Your task to perform on an android device: clear all cookies in the chrome app Image 0: 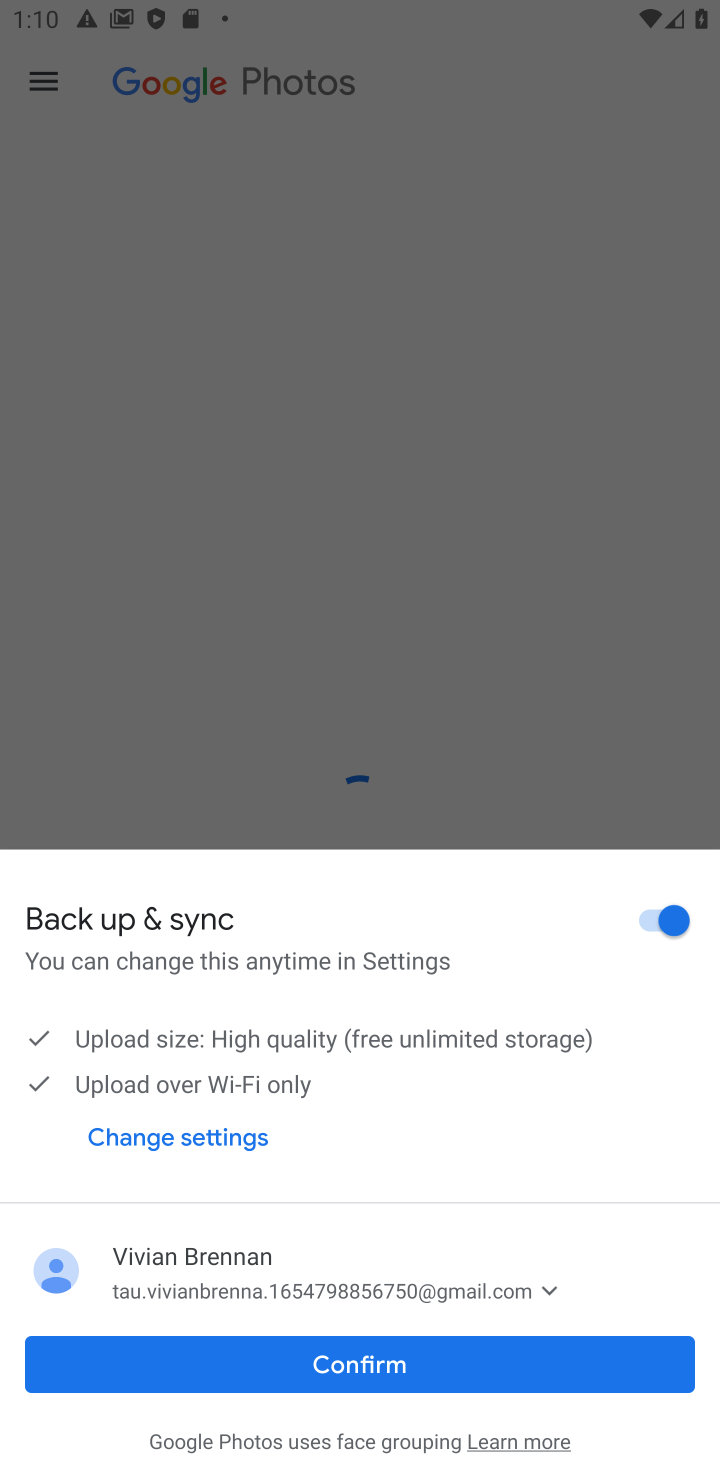
Step 0: press home button
Your task to perform on an android device: clear all cookies in the chrome app Image 1: 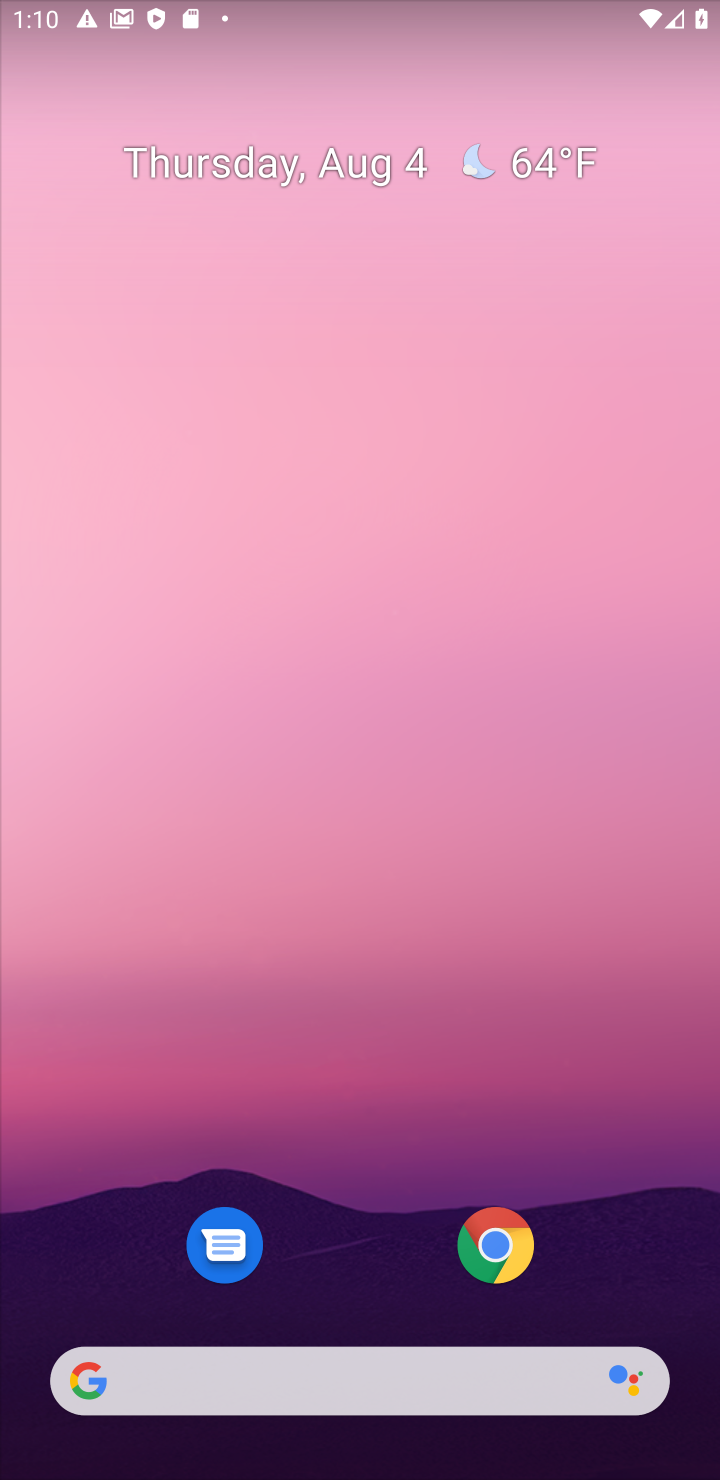
Step 1: click (497, 1238)
Your task to perform on an android device: clear all cookies in the chrome app Image 2: 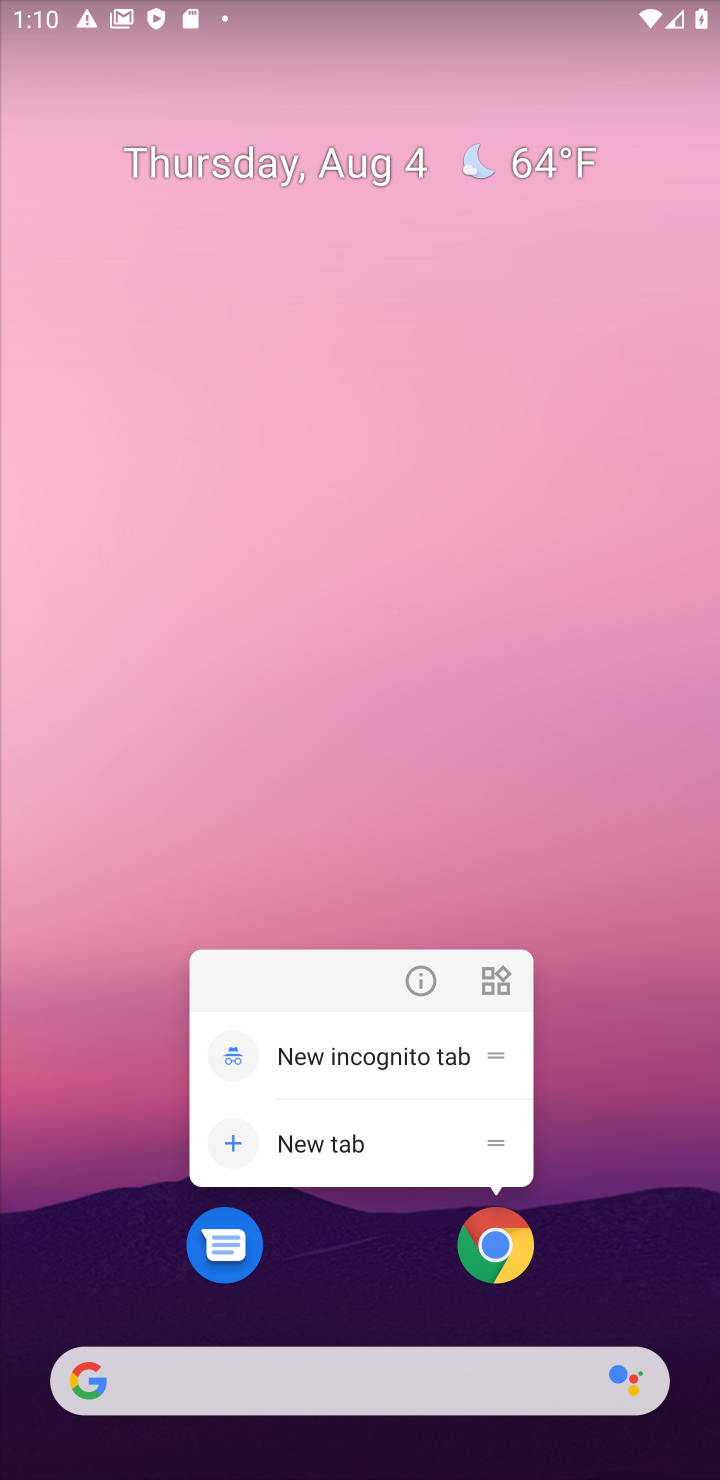
Step 2: click (497, 1236)
Your task to perform on an android device: clear all cookies in the chrome app Image 3: 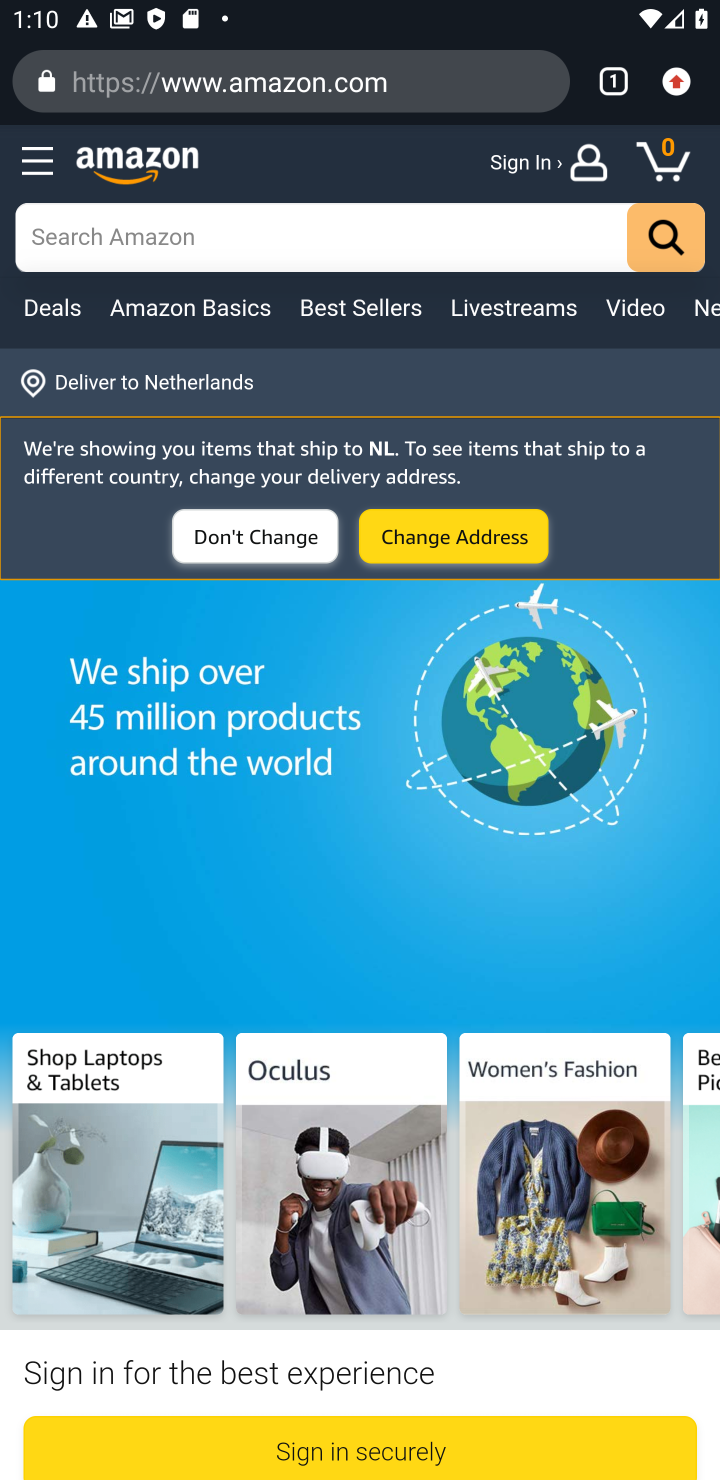
Step 3: click (665, 85)
Your task to perform on an android device: clear all cookies in the chrome app Image 4: 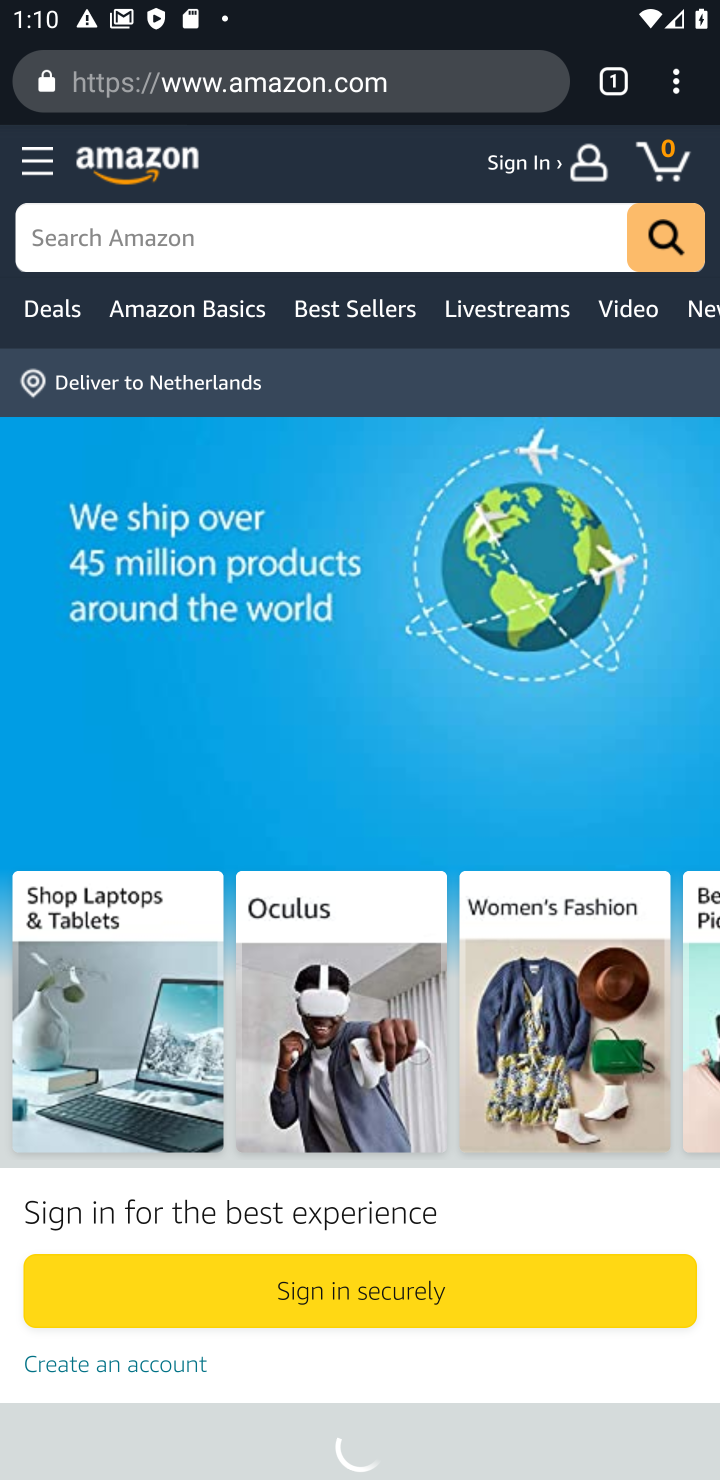
Step 4: click (675, 76)
Your task to perform on an android device: clear all cookies in the chrome app Image 5: 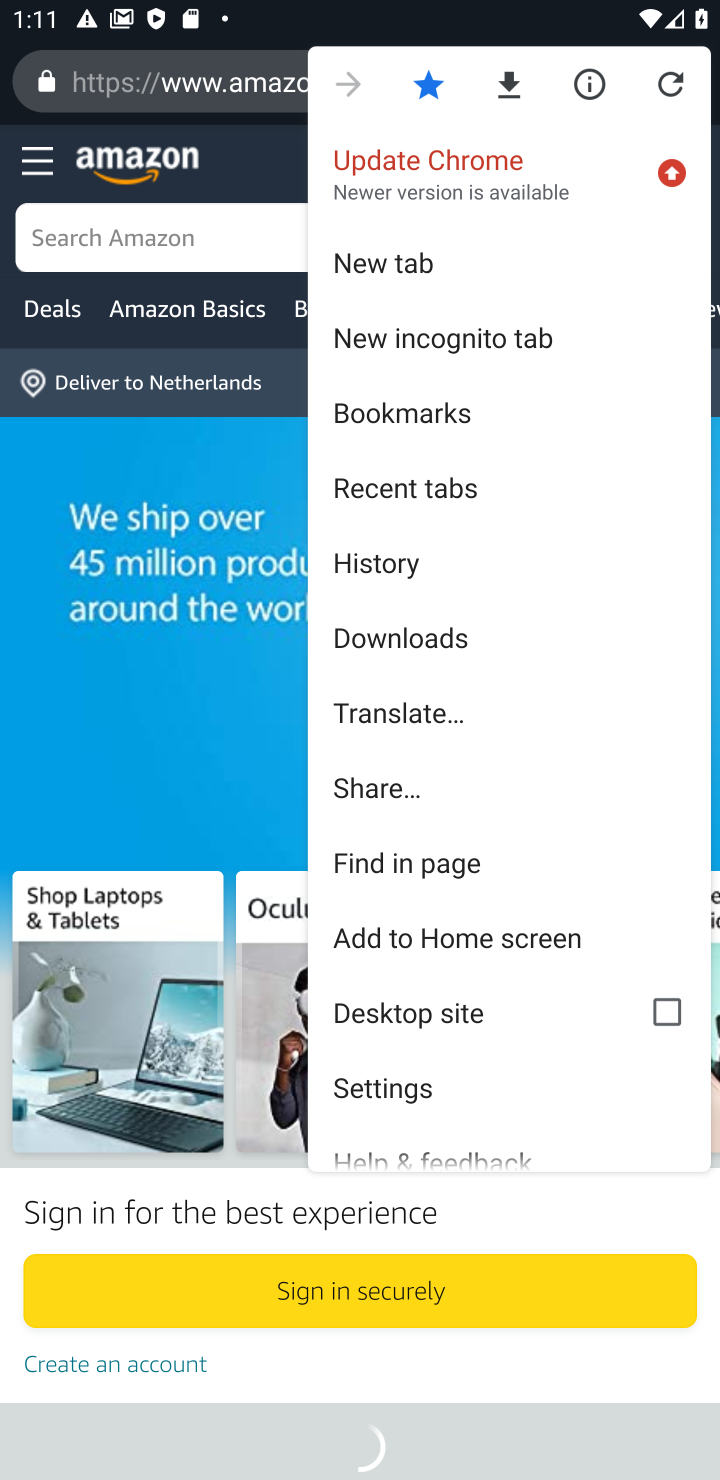
Step 5: click (426, 554)
Your task to perform on an android device: clear all cookies in the chrome app Image 6: 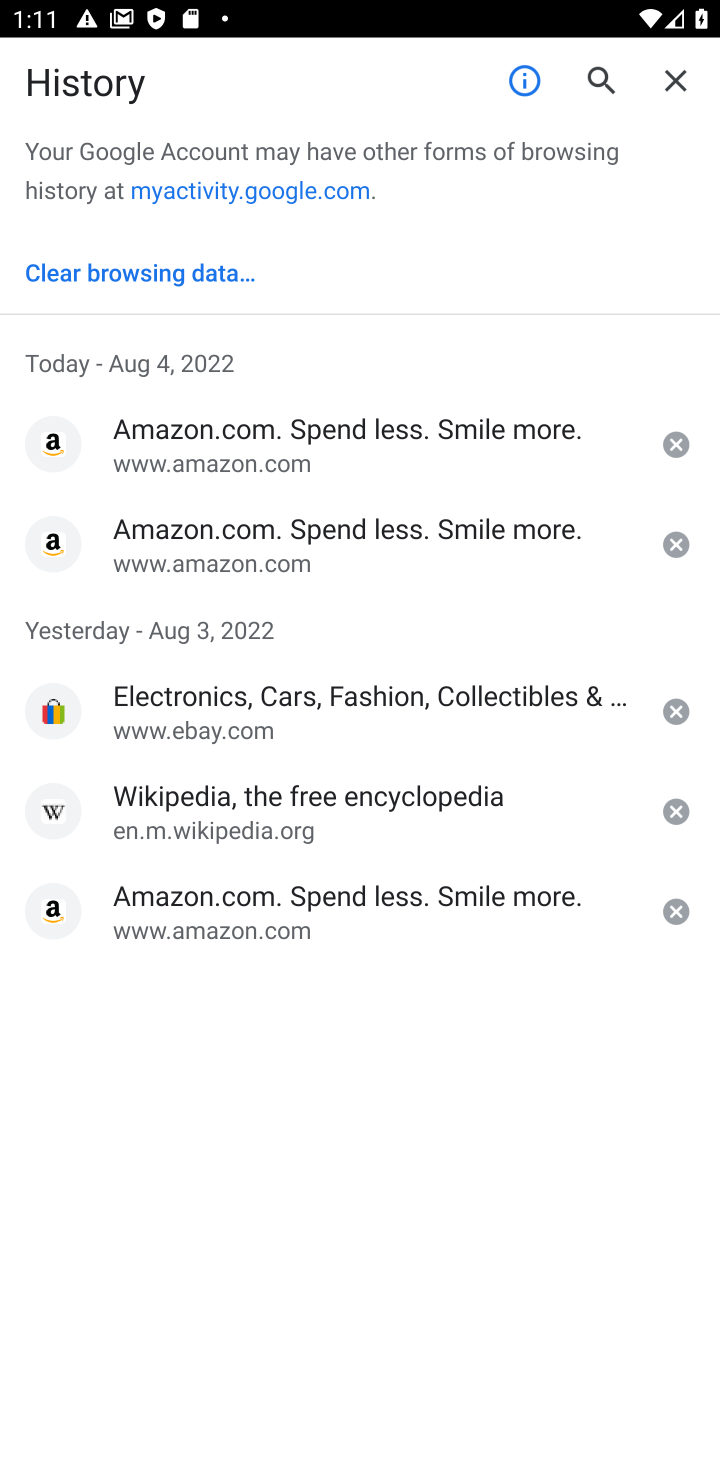
Step 6: click (67, 273)
Your task to perform on an android device: clear all cookies in the chrome app Image 7: 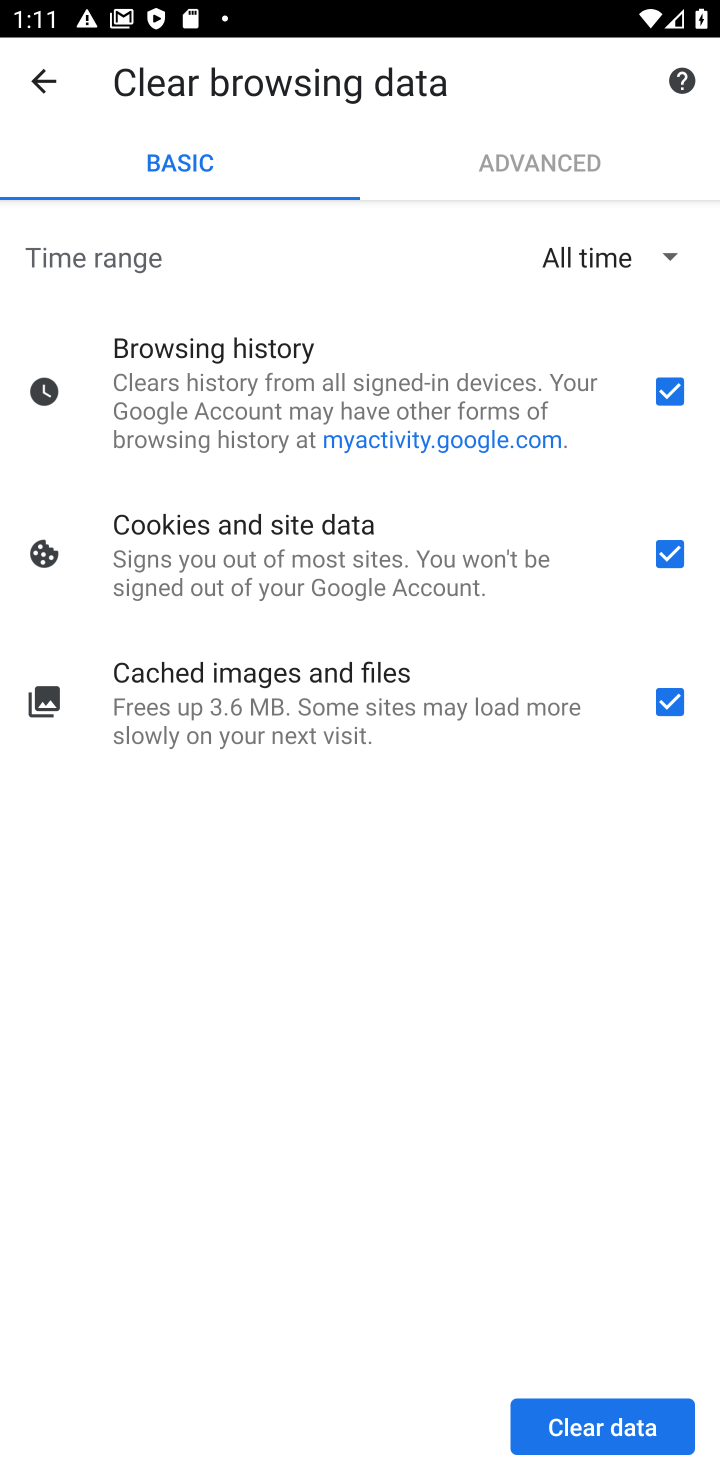
Step 7: click (668, 714)
Your task to perform on an android device: clear all cookies in the chrome app Image 8: 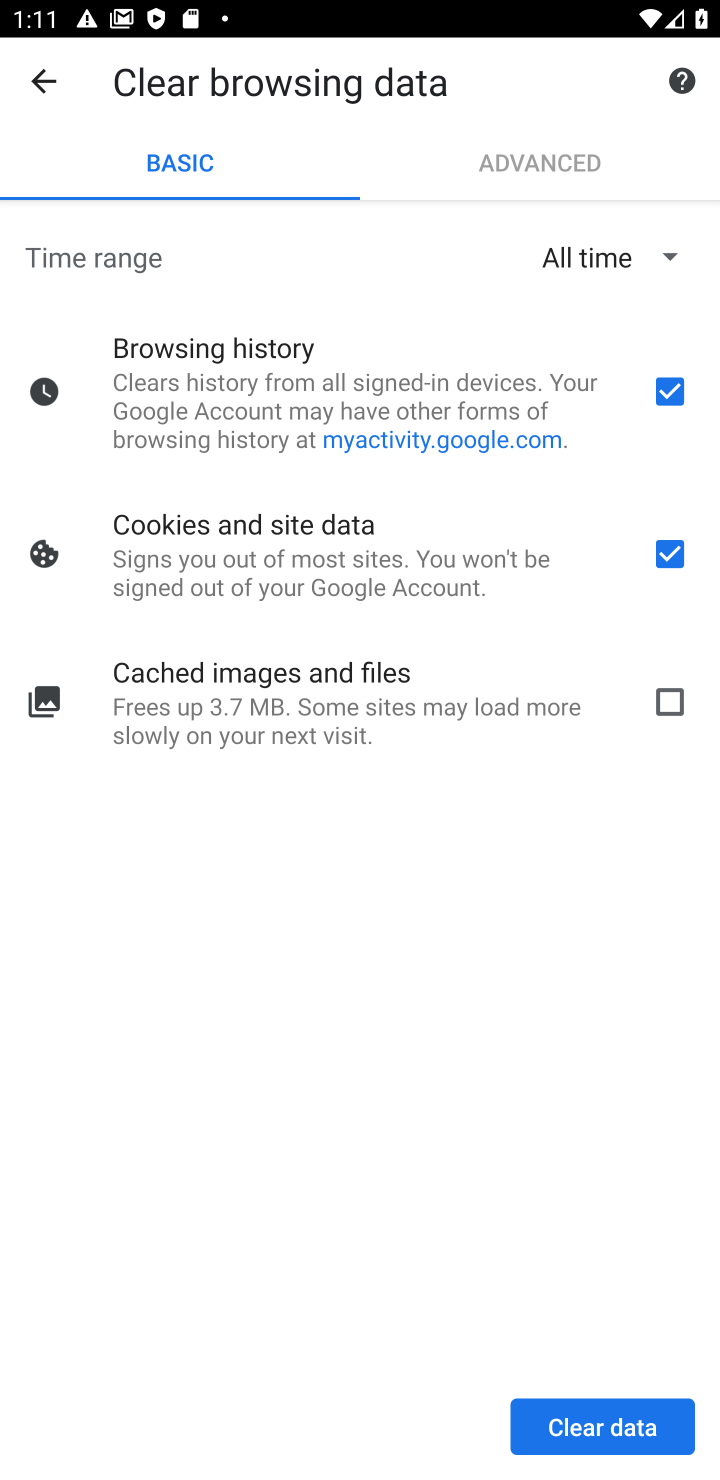
Step 8: click (687, 386)
Your task to perform on an android device: clear all cookies in the chrome app Image 9: 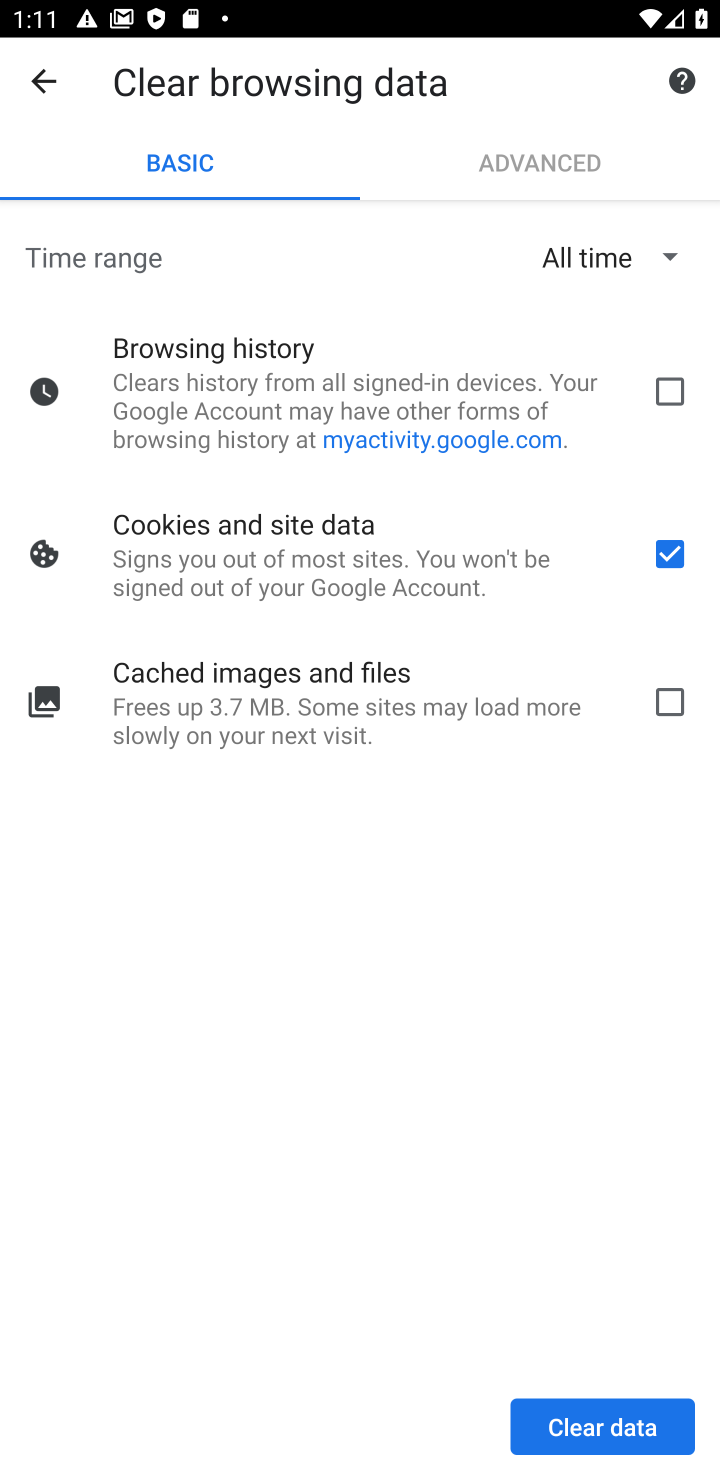
Step 9: click (593, 1428)
Your task to perform on an android device: clear all cookies in the chrome app Image 10: 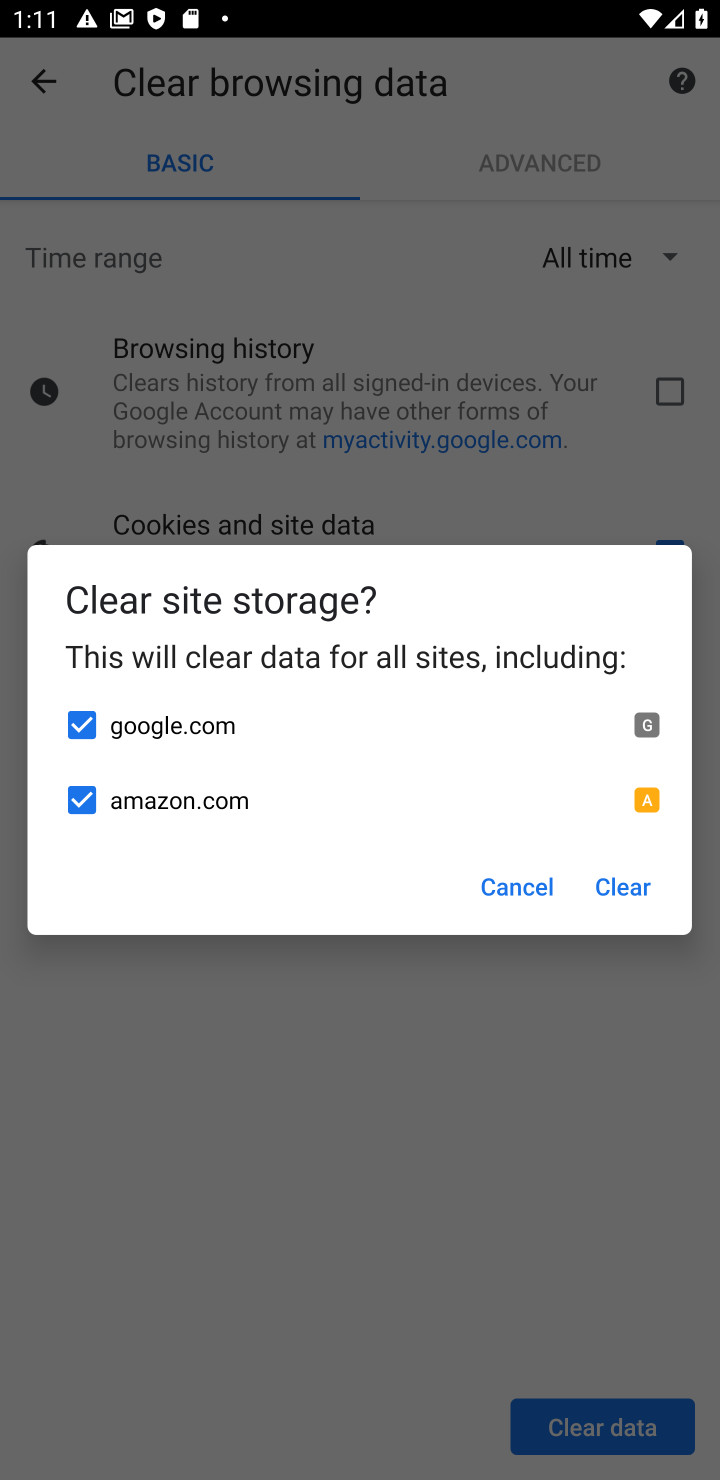
Step 10: click (626, 876)
Your task to perform on an android device: clear all cookies in the chrome app Image 11: 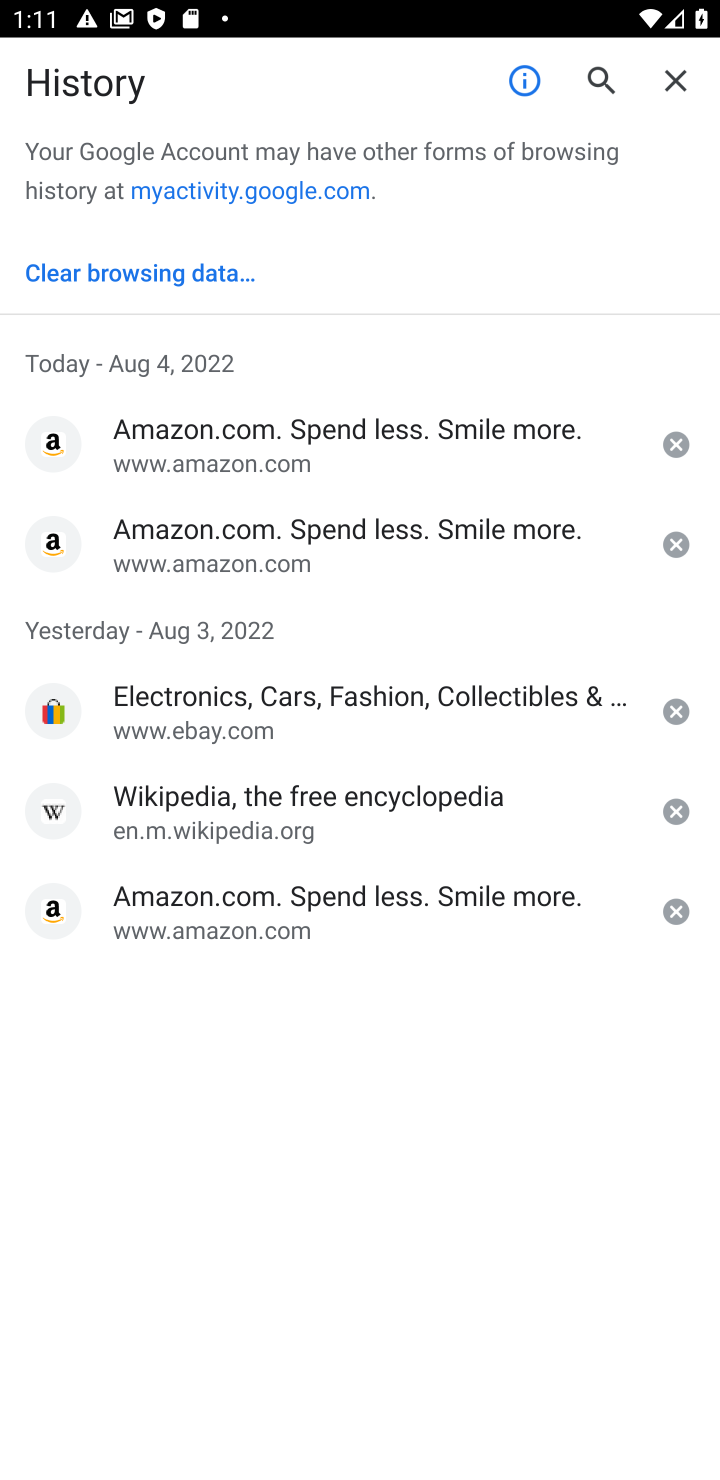
Step 11: task complete